Your task to perform on an android device: turn off airplane mode Image 0: 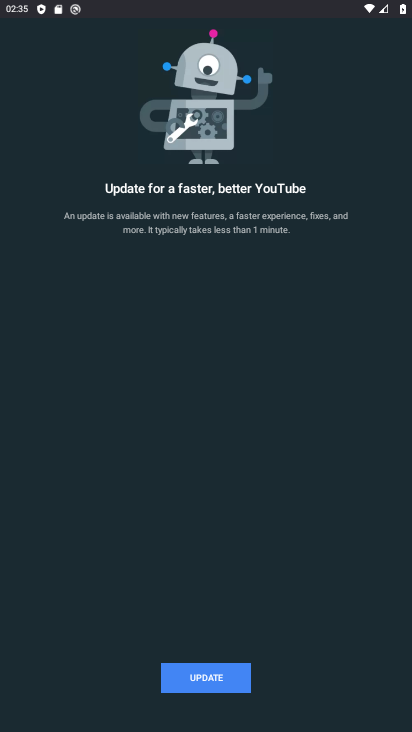
Step 0: press back button
Your task to perform on an android device: turn off airplane mode Image 1: 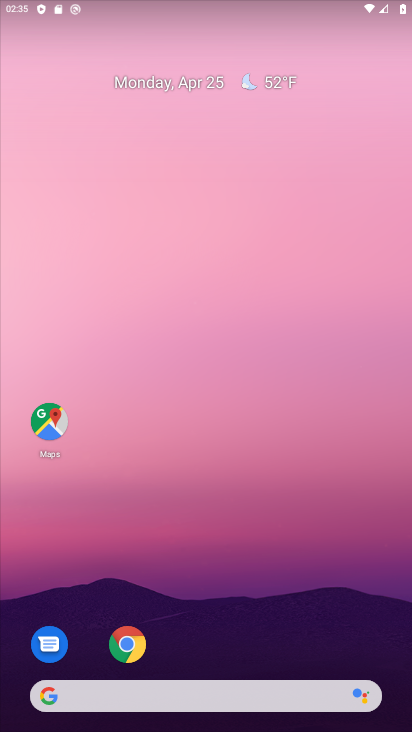
Step 1: drag from (249, 622) to (246, 81)
Your task to perform on an android device: turn off airplane mode Image 2: 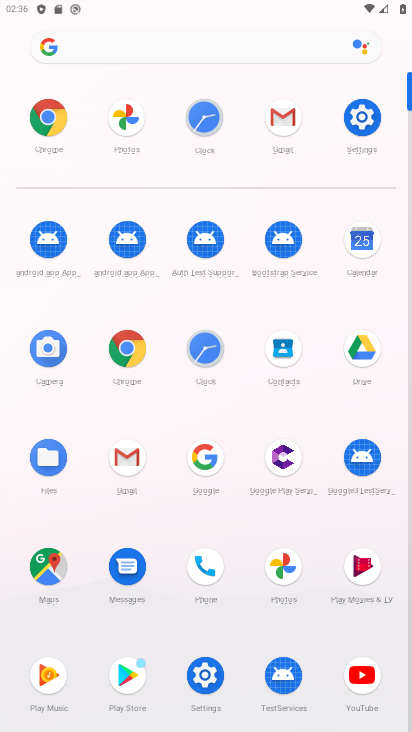
Step 2: click (368, 112)
Your task to perform on an android device: turn off airplane mode Image 3: 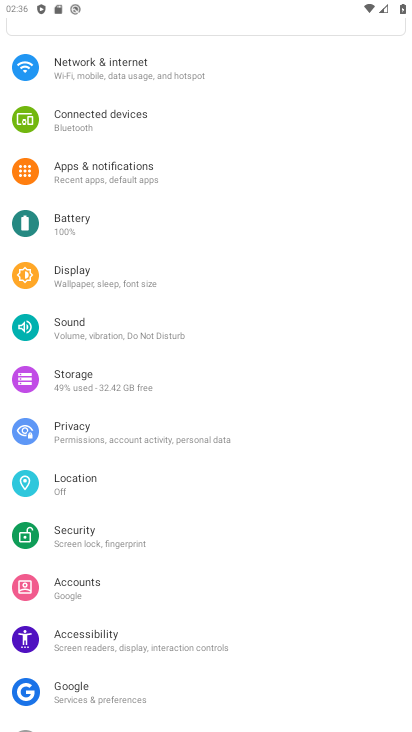
Step 3: click (185, 71)
Your task to perform on an android device: turn off airplane mode Image 4: 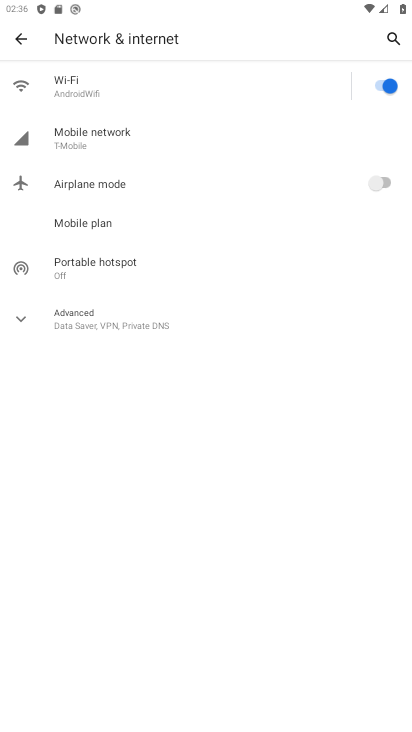
Step 4: task complete